Your task to perform on an android device: Open internet settings Image 0: 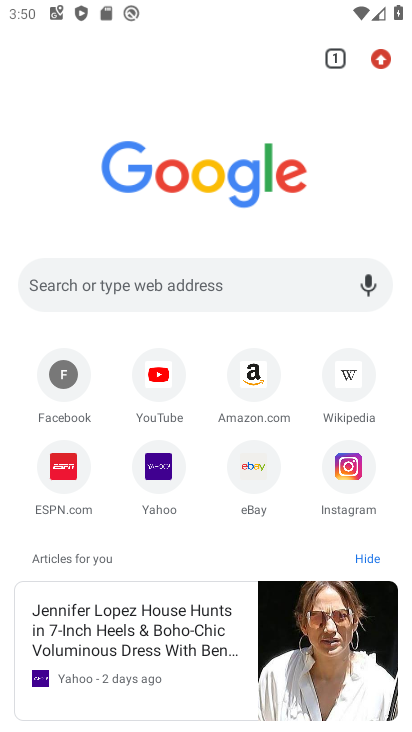
Step 0: press home button
Your task to perform on an android device: Open internet settings Image 1: 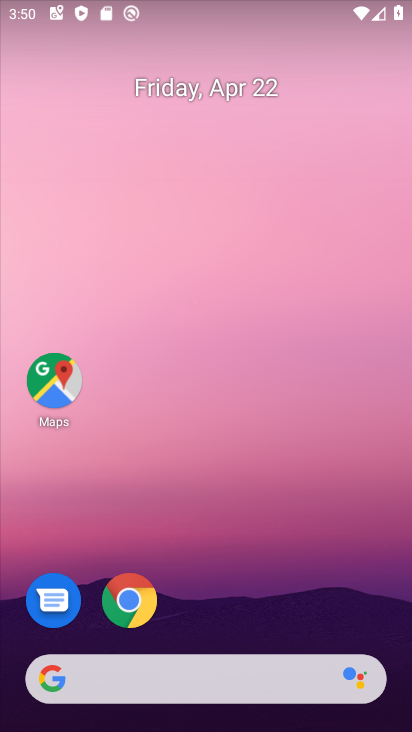
Step 1: drag from (196, 659) to (358, 7)
Your task to perform on an android device: Open internet settings Image 2: 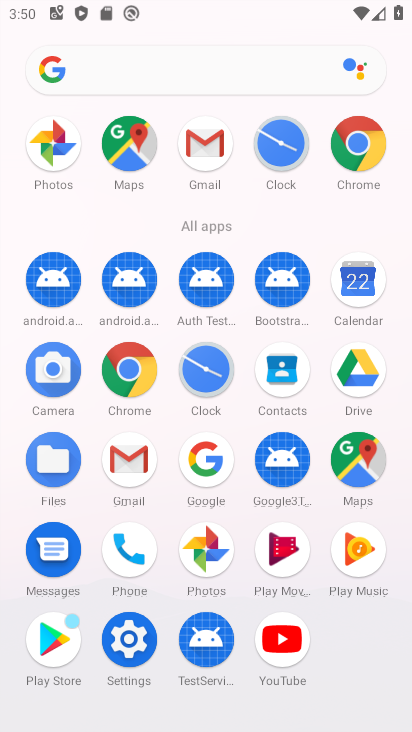
Step 2: click (125, 634)
Your task to perform on an android device: Open internet settings Image 3: 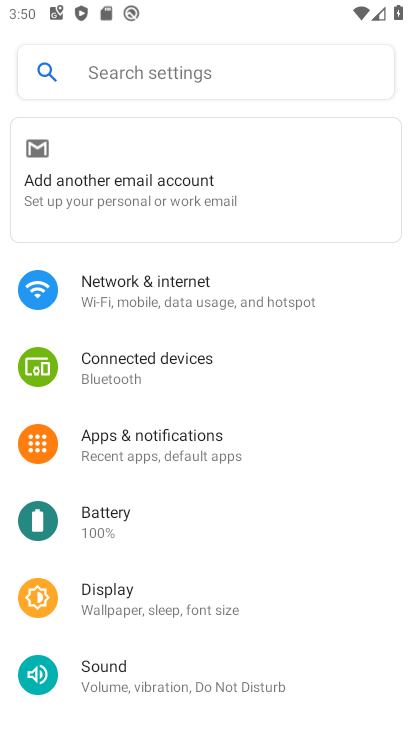
Step 3: click (219, 307)
Your task to perform on an android device: Open internet settings Image 4: 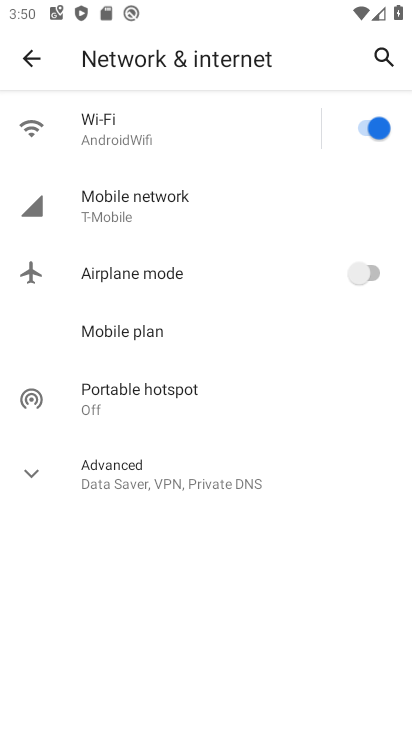
Step 4: click (204, 218)
Your task to perform on an android device: Open internet settings Image 5: 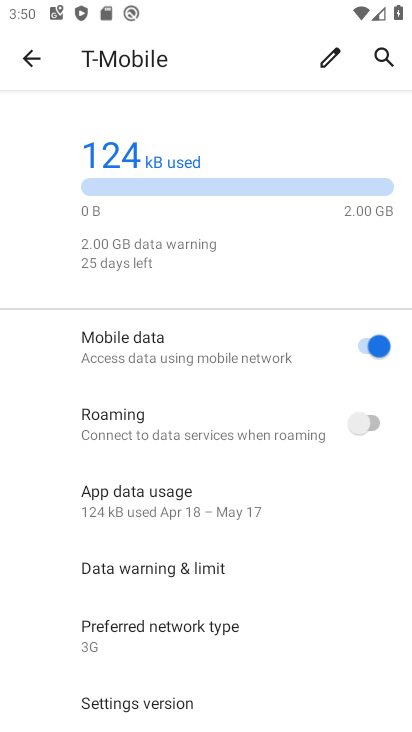
Step 5: task complete